Your task to perform on an android device: open a new tab in the chrome app Image 0: 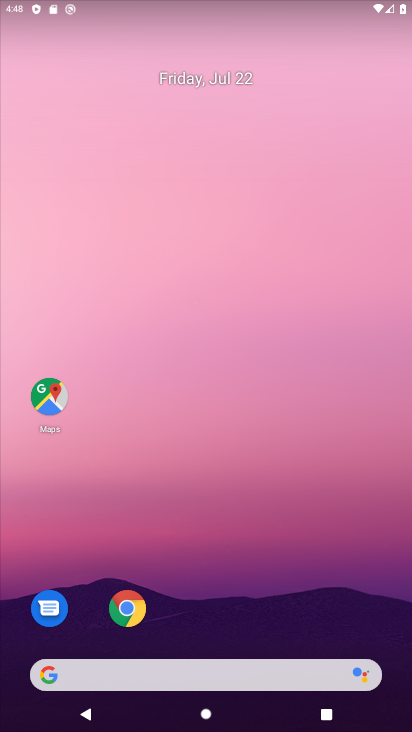
Step 0: click (122, 620)
Your task to perform on an android device: open a new tab in the chrome app Image 1: 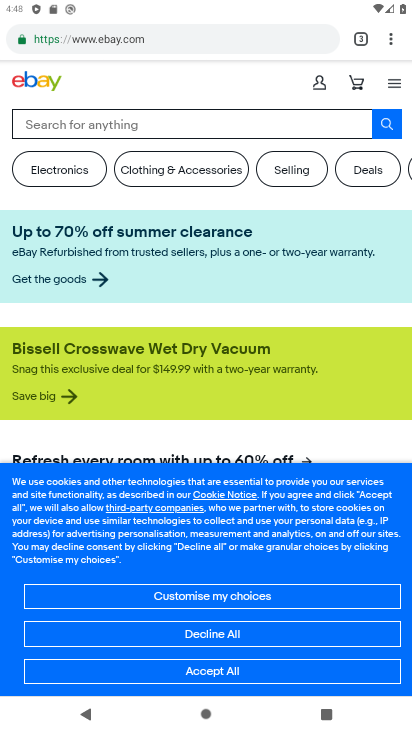
Step 1: click (356, 48)
Your task to perform on an android device: open a new tab in the chrome app Image 2: 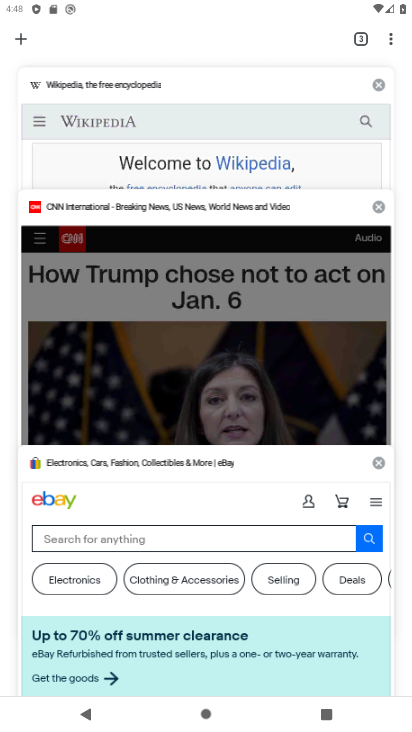
Step 2: click (19, 36)
Your task to perform on an android device: open a new tab in the chrome app Image 3: 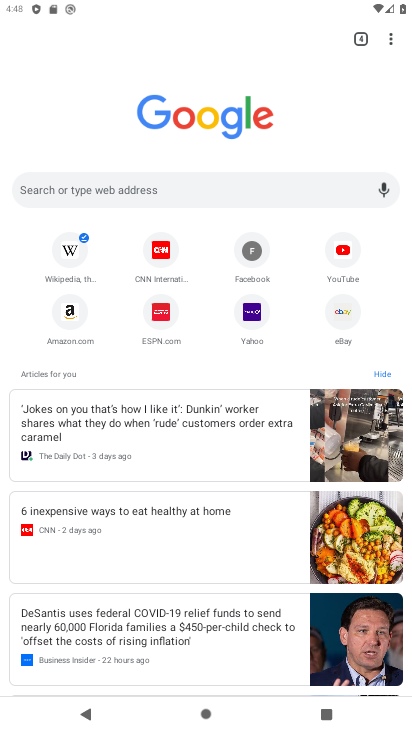
Step 3: task complete